Your task to perform on an android device: Open Youtube and go to the subscriptions tab Image 0: 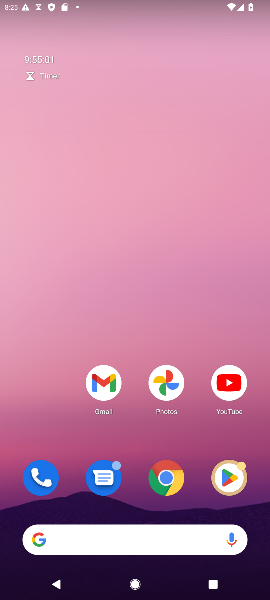
Step 0: click (233, 397)
Your task to perform on an android device: Open Youtube and go to the subscriptions tab Image 1: 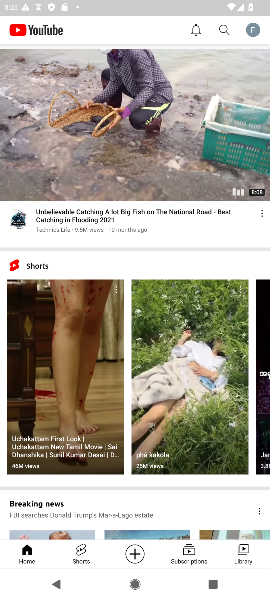
Step 1: click (187, 556)
Your task to perform on an android device: Open Youtube and go to the subscriptions tab Image 2: 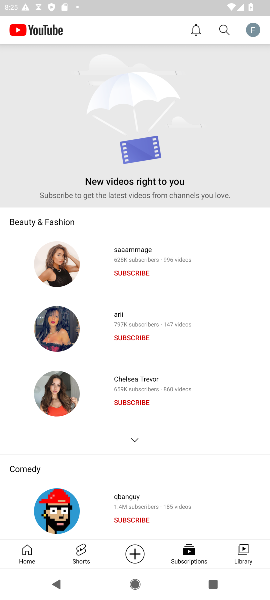
Step 2: task complete